Your task to perform on an android device: Open calendar and show me the fourth week of next month Image 0: 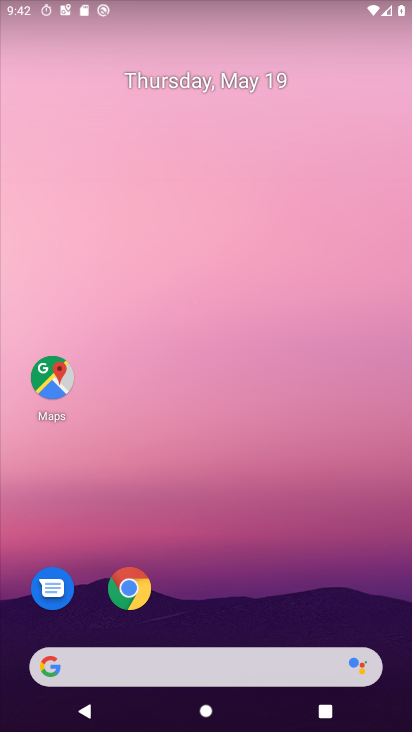
Step 0: press home button
Your task to perform on an android device: Open calendar and show me the fourth week of next month Image 1: 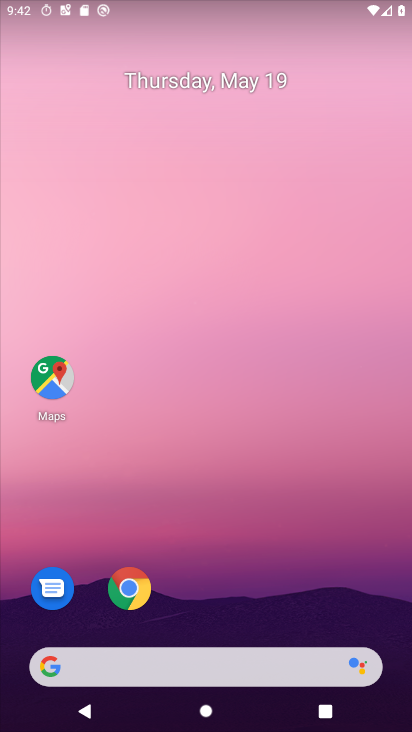
Step 1: drag from (174, 670) to (282, 215)
Your task to perform on an android device: Open calendar and show me the fourth week of next month Image 2: 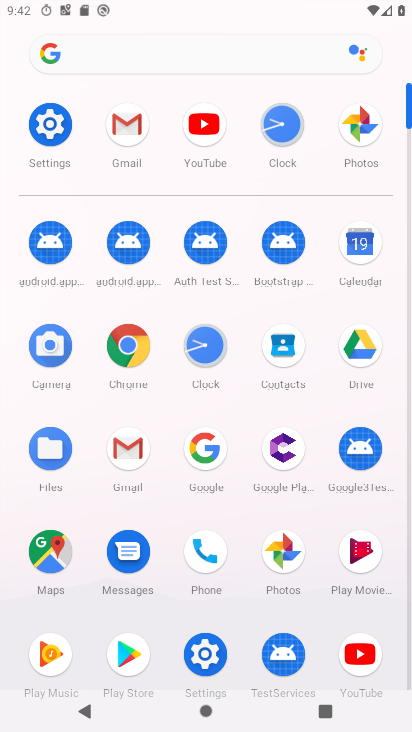
Step 2: click (364, 258)
Your task to perform on an android device: Open calendar and show me the fourth week of next month Image 3: 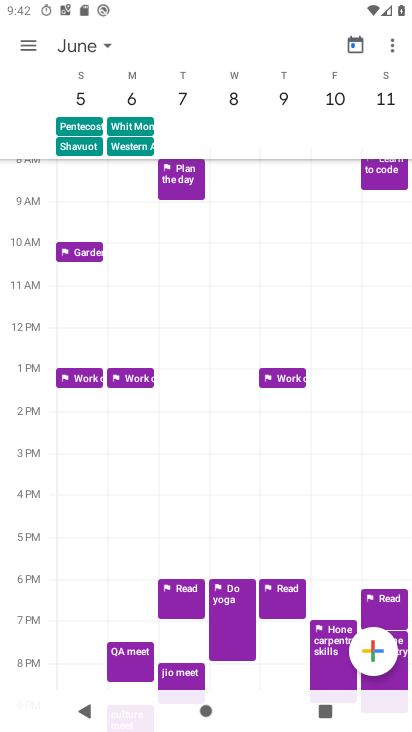
Step 3: click (82, 47)
Your task to perform on an android device: Open calendar and show me the fourth week of next month Image 4: 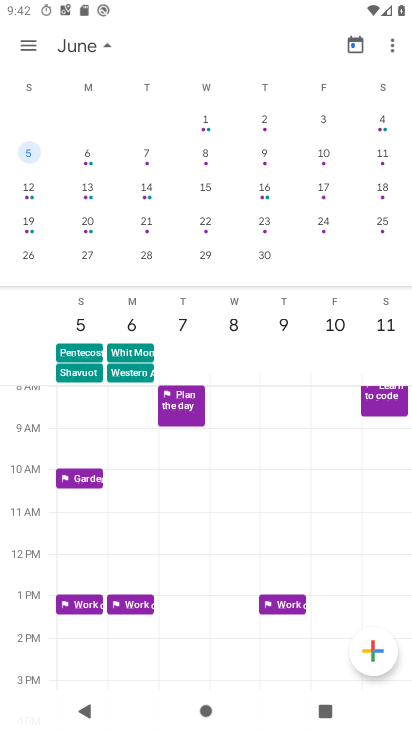
Step 4: click (30, 223)
Your task to perform on an android device: Open calendar and show me the fourth week of next month Image 5: 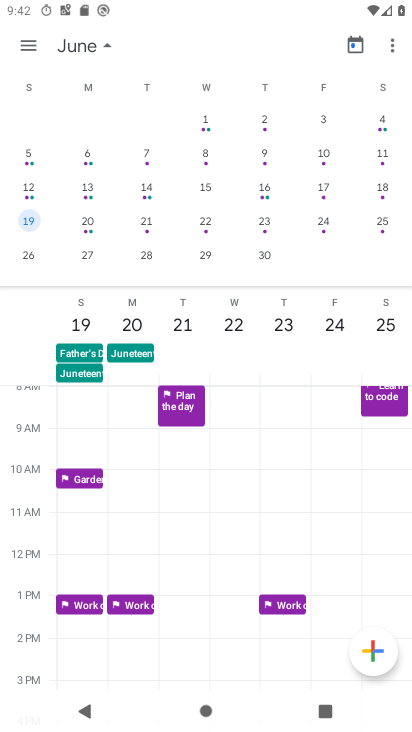
Step 5: click (35, 39)
Your task to perform on an android device: Open calendar and show me the fourth week of next month Image 6: 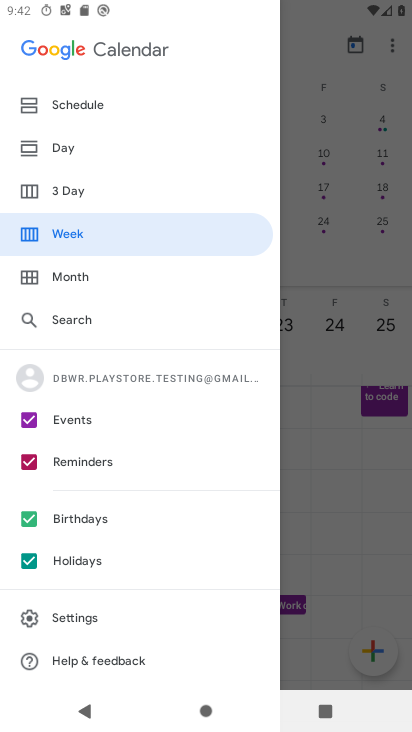
Step 6: click (67, 229)
Your task to perform on an android device: Open calendar and show me the fourth week of next month Image 7: 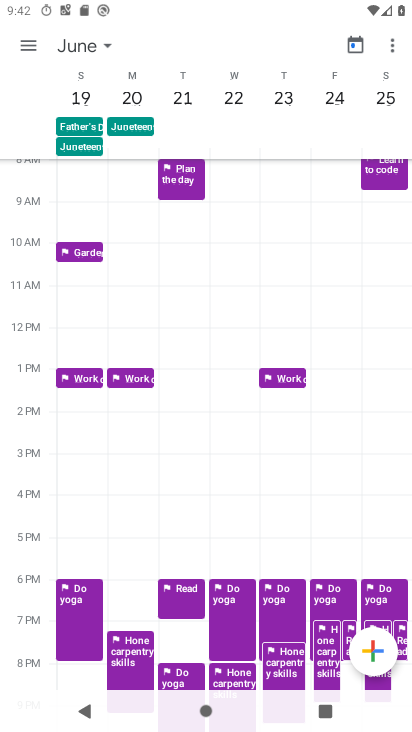
Step 7: click (33, 44)
Your task to perform on an android device: Open calendar and show me the fourth week of next month Image 8: 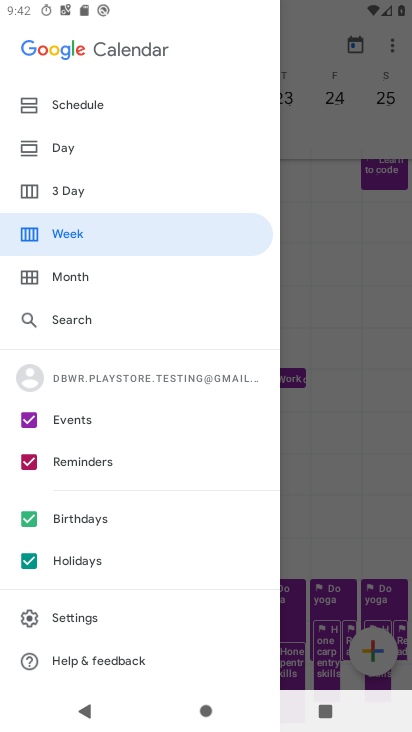
Step 8: click (66, 231)
Your task to perform on an android device: Open calendar and show me the fourth week of next month Image 9: 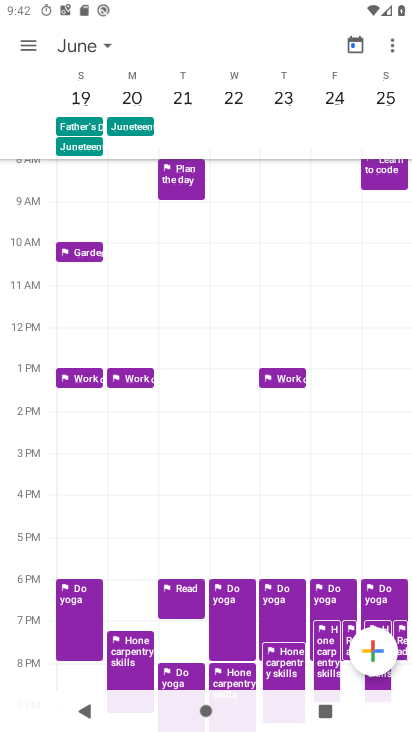
Step 9: task complete